Your task to perform on an android device: check android version Image 0: 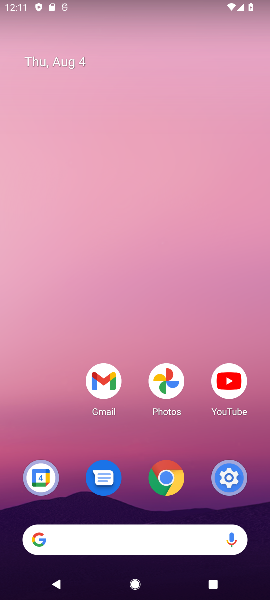
Step 0: click (236, 476)
Your task to perform on an android device: check android version Image 1: 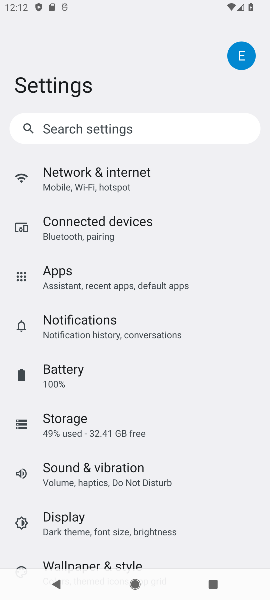
Step 1: drag from (155, 521) to (182, 136)
Your task to perform on an android device: check android version Image 2: 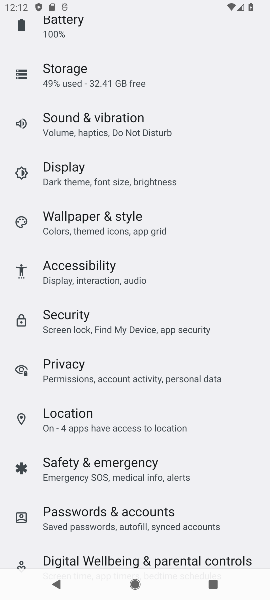
Step 2: drag from (119, 492) to (151, 145)
Your task to perform on an android device: check android version Image 3: 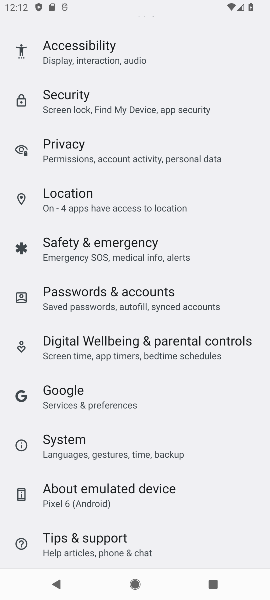
Step 3: click (81, 489)
Your task to perform on an android device: check android version Image 4: 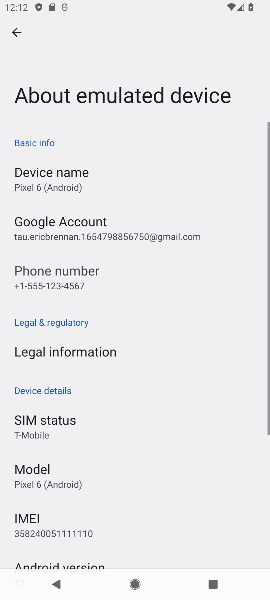
Step 4: drag from (82, 480) to (140, 279)
Your task to perform on an android device: check android version Image 5: 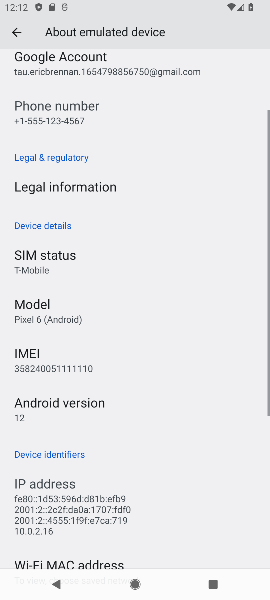
Step 5: click (59, 401)
Your task to perform on an android device: check android version Image 6: 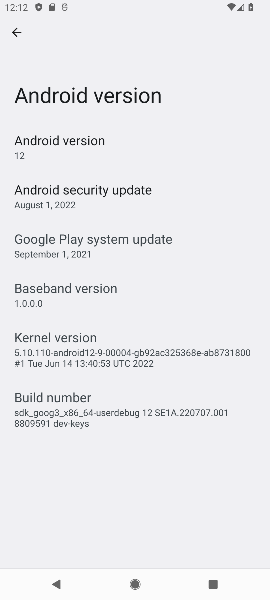
Step 6: task complete